Your task to perform on an android device: Is it going to rain tomorrow? Image 0: 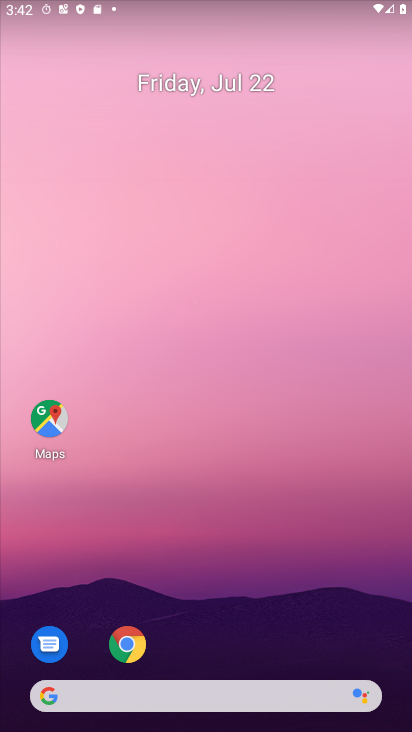
Step 0: press home button
Your task to perform on an android device: Is it going to rain tomorrow? Image 1: 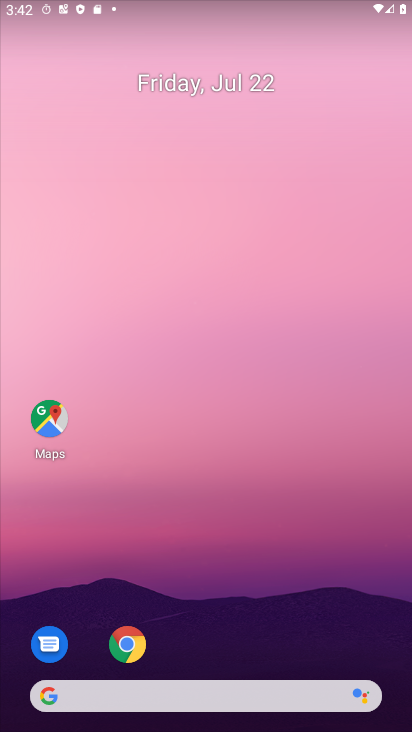
Step 1: click (56, 695)
Your task to perform on an android device: Is it going to rain tomorrow? Image 2: 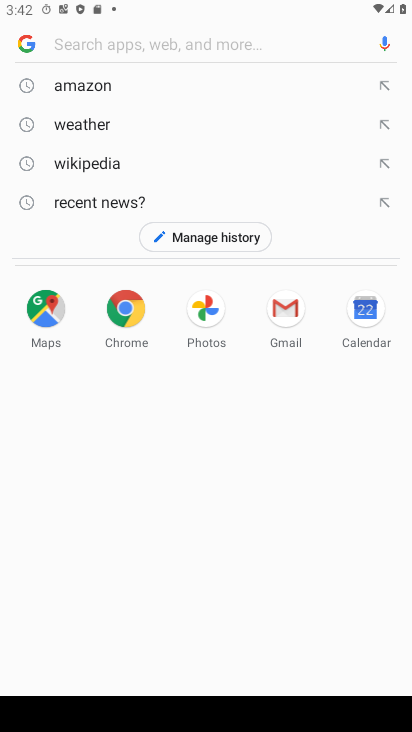
Step 2: type "rain tomorrow?"
Your task to perform on an android device: Is it going to rain tomorrow? Image 3: 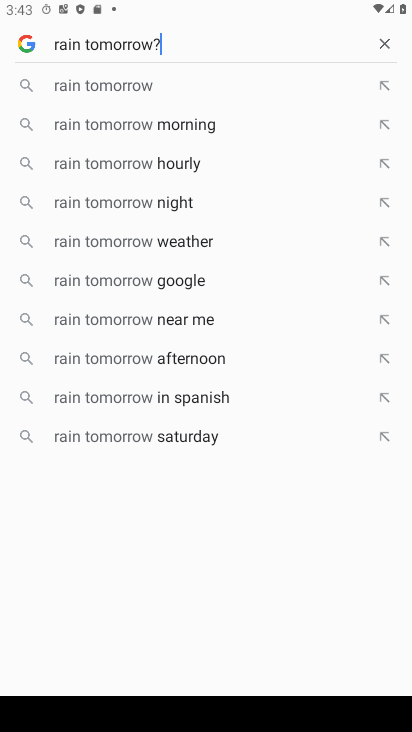
Step 3: press enter
Your task to perform on an android device: Is it going to rain tomorrow? Image 4: 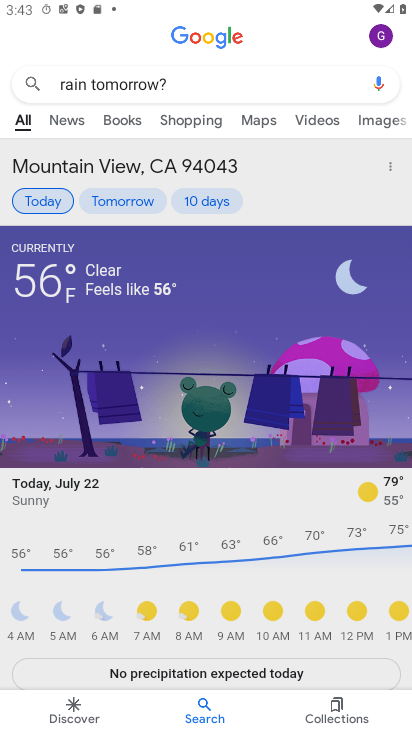
Step 4: task complete